Your task to perform on an android device: Open calendar and show me the third week of next month Image 0: 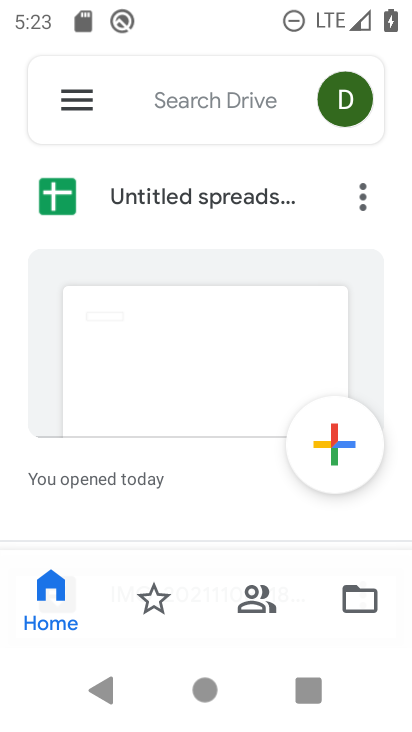
Step 0: press home button
Your task to perform on an android device: Open calendar and show me the third week of next month Image 1: 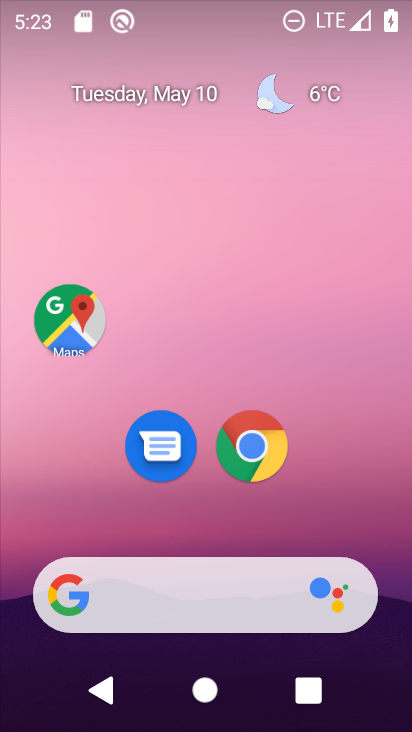
Step 1: drag from (291, 520) to (230, 103)
Your task to perform on an android device: Open calendar and show me the third week of next month Image 2: 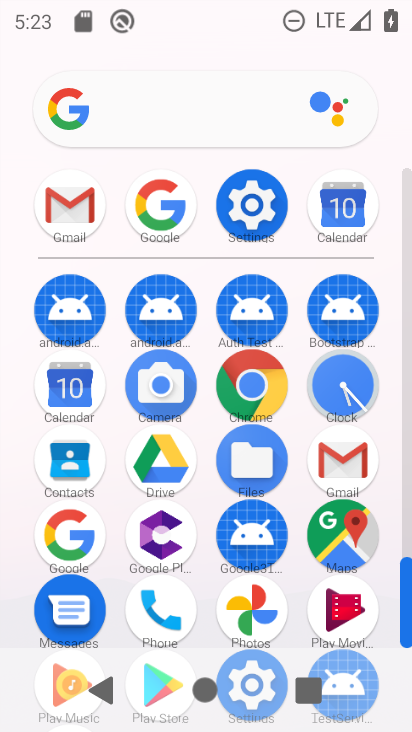
Step 2: click (73, 401)
Your task to perform on an android device: Open calendar and show me the third week of next month Image 3: 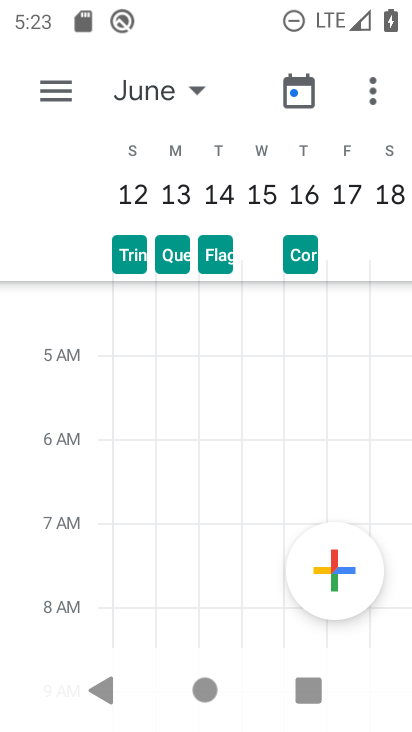
Step 3: click (145, 98)
Your task to perform on an android device: Open calendar and show me the third week of next month Image 4: 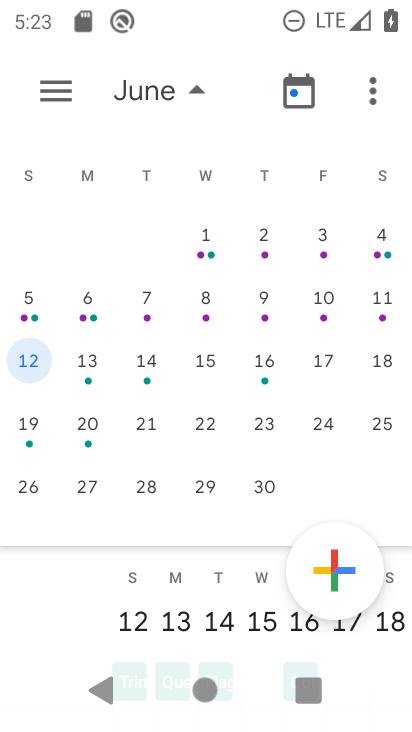
Step 4: task complete